Your task to perform on an android device: check storage Image 0: 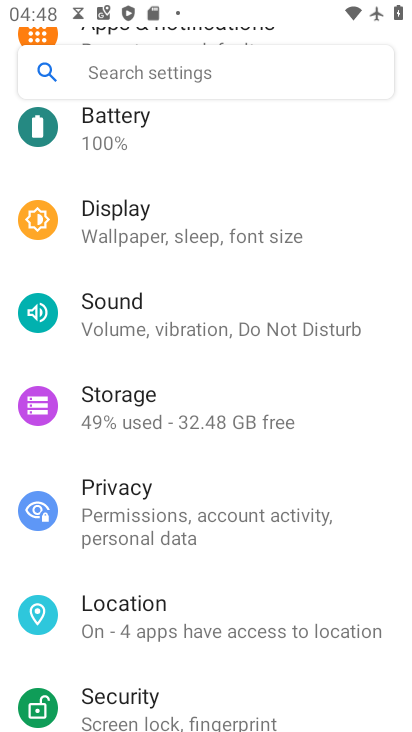
Step 0: drag from (250, 507) to (281, 195)
Your task to perform on an android device: check storage Image 1: 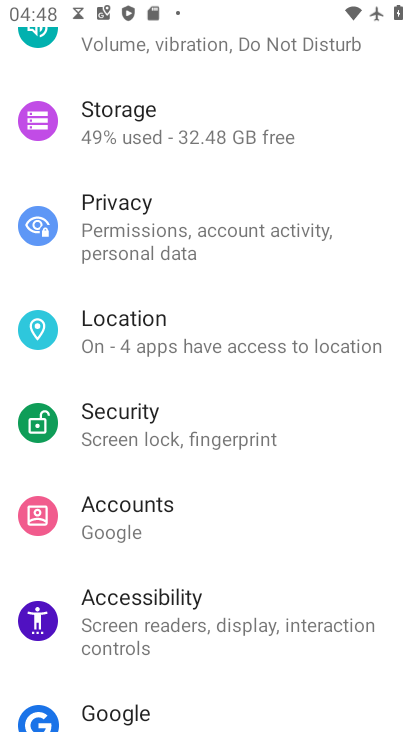
Step 1: drag from (137, 582) to (222, 214)
Your task to perform on an android device: check storage Image 2: 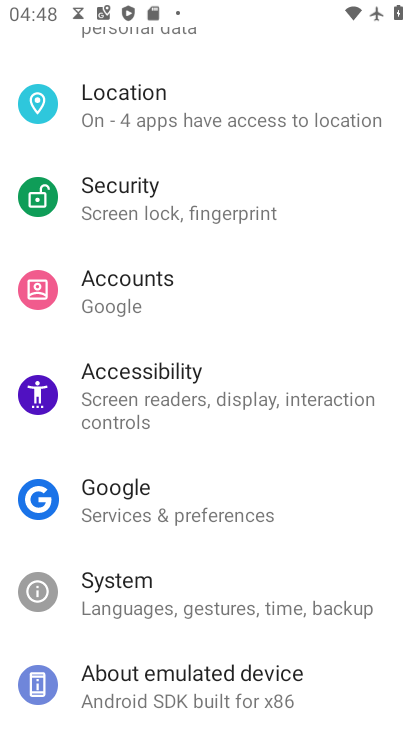
Step 2: drag from (222, 572) to (262, 150)
Your task to perform on an android device: check storage Image 3: 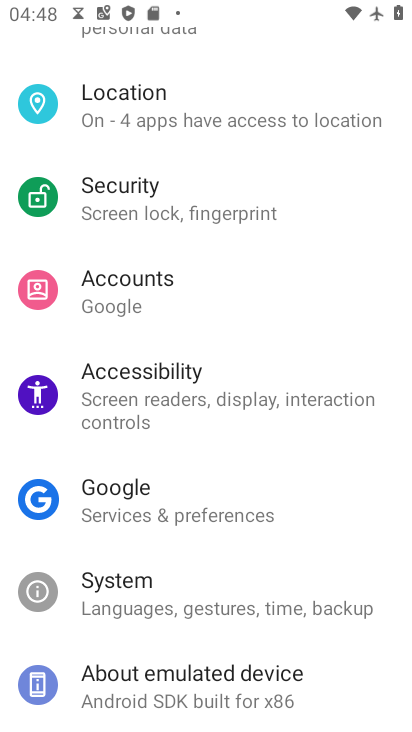
Step 3: drag from (237, 225) to (210, 656)
Your task to perform on an android device: check storage Image 4: 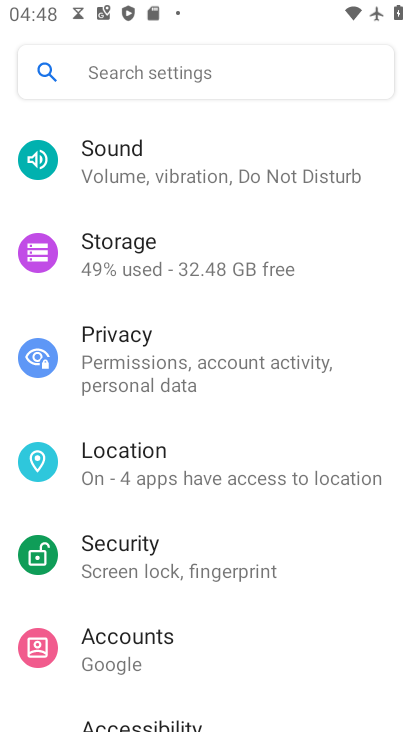
Step 4: click (177, 257)
Your task to perform on an android device: check storage Image 5: 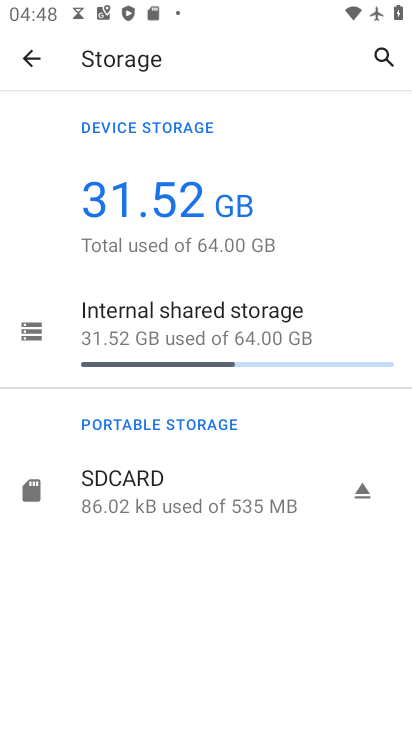
Step 5: task complete